Your task to perform on an android device: check the backup settings in the google photos Image 0: 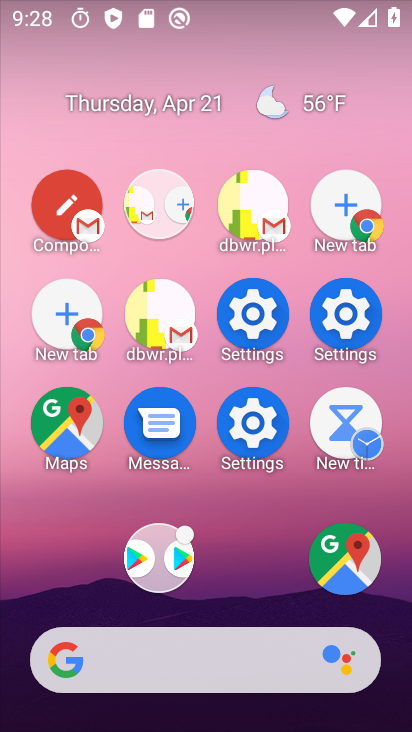
Step 0: drag from (283, 724) to (204, 285)
Your task to perform on an android device: check the backup settings in the google photos Image 1: 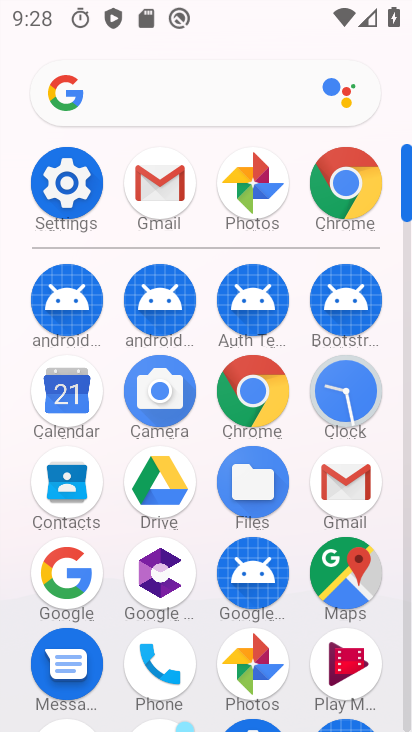
Step 1: click (247, 664)
Your task to perform on an android device: check the backup settings in the google photos Image 2: 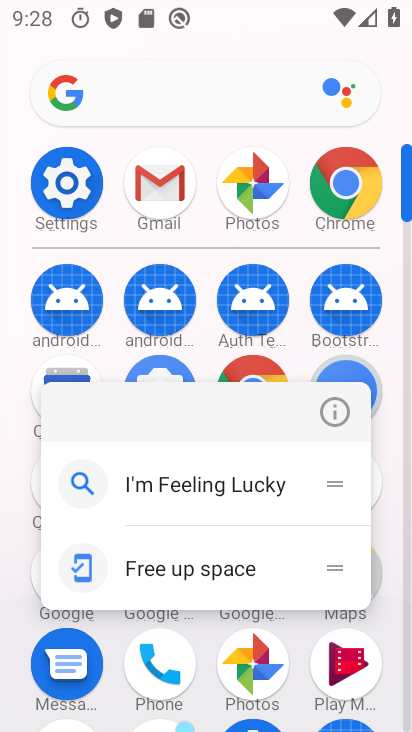
Step 2: click (388, 472)
Your task to perform on an android device: check the backup settings in the google photos Image 3: 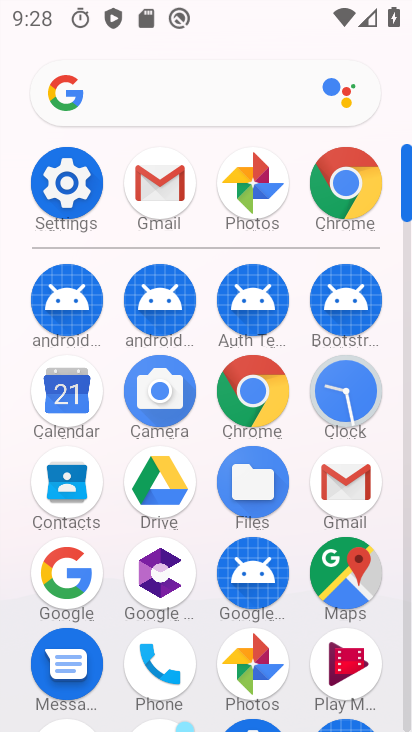
Step 3: click (253, 190)
Your task to perform on an android device: check the backup settings in the google photos Image 4: 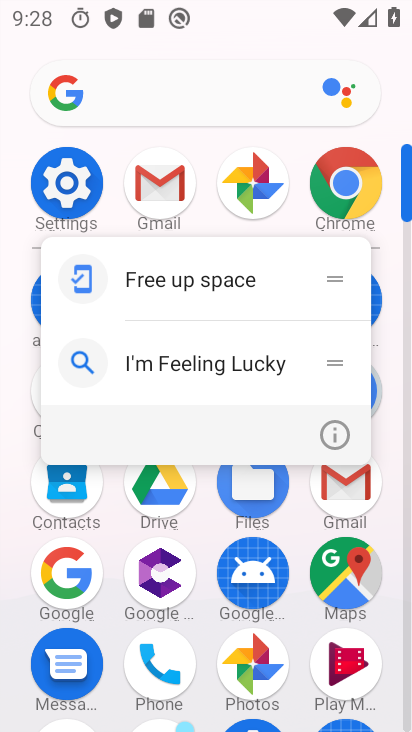
Step 4: click (236, 183)
Your task to perform on an android device: check the backup settings in the google photos Image 5: 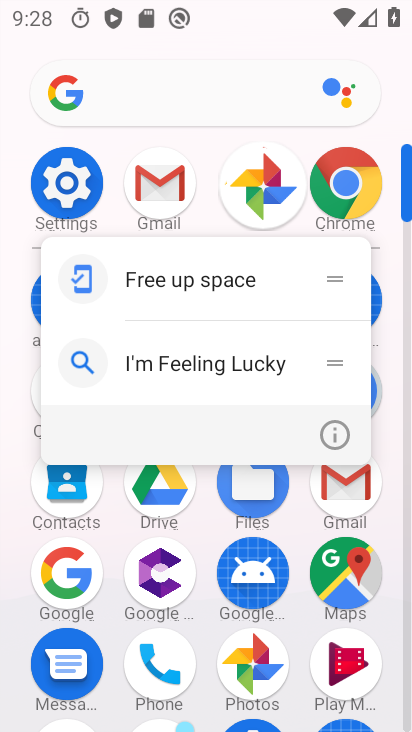
Step 5: click (247, 185)
Your task to perform on an android device: check the backup settings in the google photos Image 6: 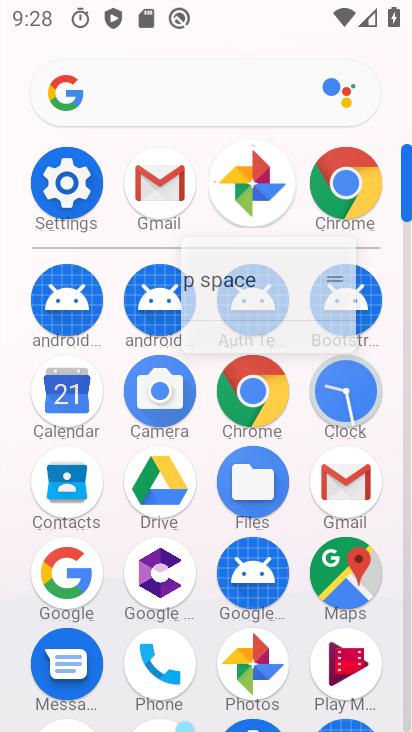
Step 6: click (247, 185)
Your task to perform on an android device: check the backup settings in the google photos Image 7: 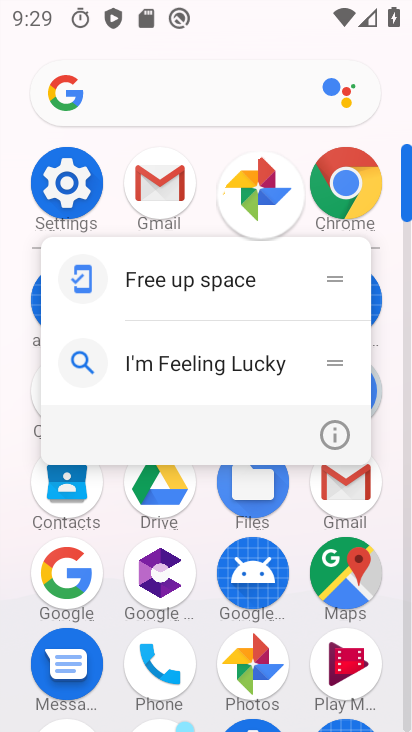
Step 7: click (259, 182)
Your task to perform on an android device: check the backup settings in the google photos Image 8: 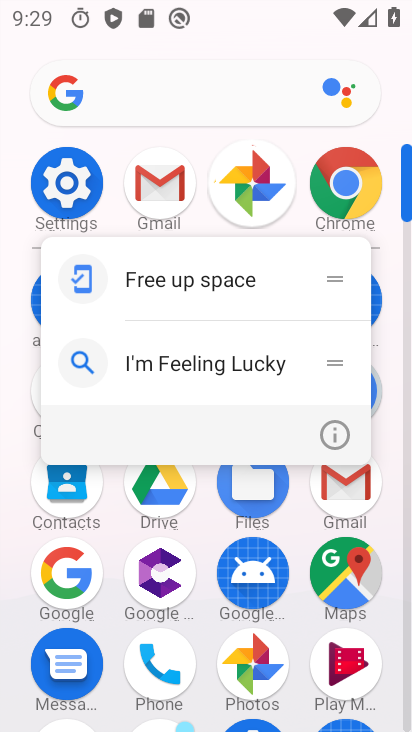
Step 8: click (259, 182)
Your task to perform on an android device: check the backup settings in the google photos Image 9: 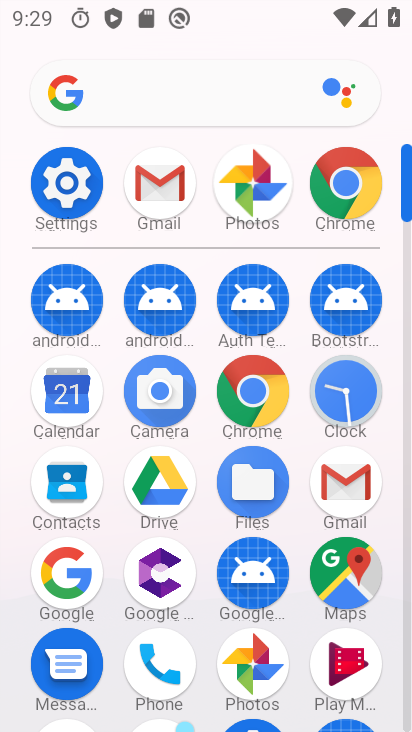
Step 9: click (259, 182)
Your task to perform on an android device: check the backup settings in the google photos Image 10: 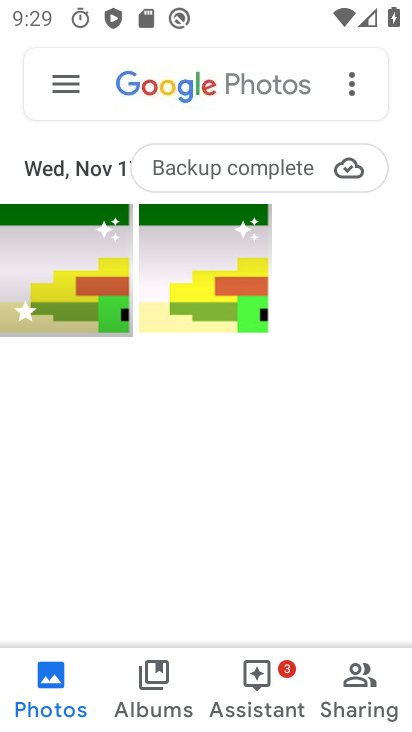
Step 10: click (259, 182)
Your task to perform on an android device: check the backup settings in the google photos Image 11: 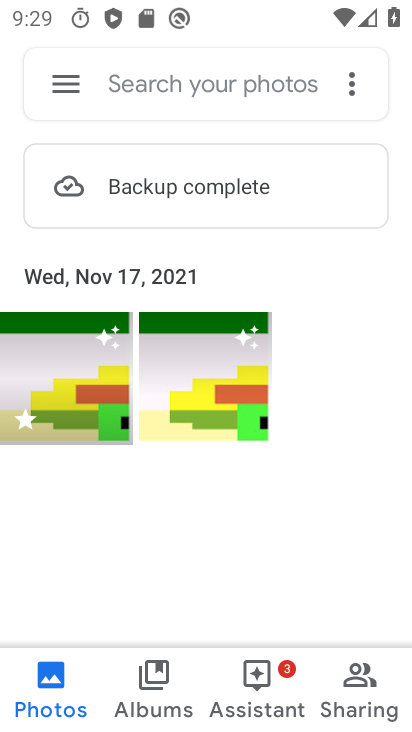
Step 11: task complete